Your task to perform on an android device: turn on data saver in the chrome app Image 0: 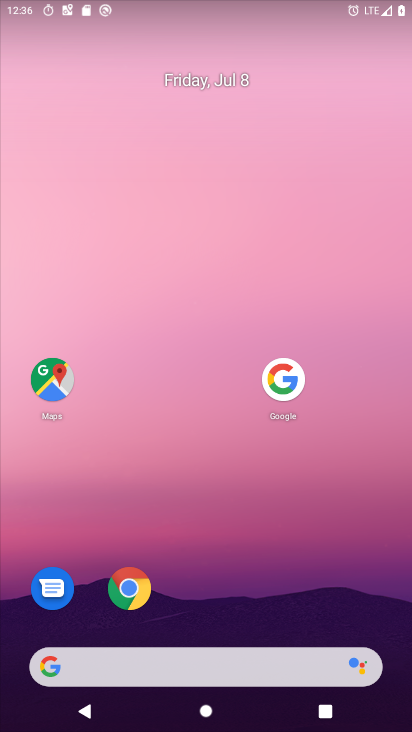
Step 0: click (133, 591)
Your task to perform on an android device: turn on data saver in the chrome app Image 1: 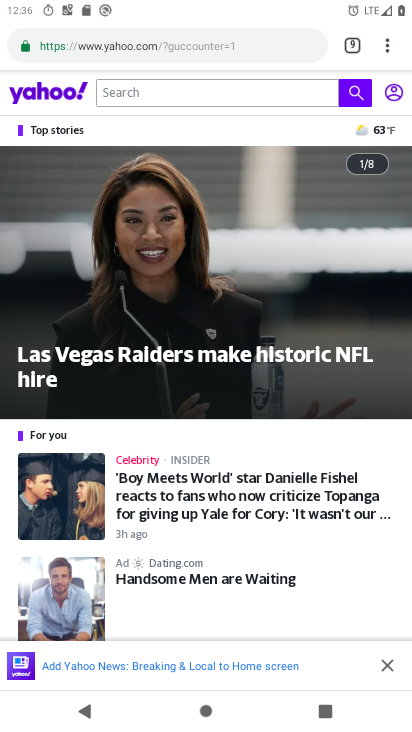
Step 1: drag from (386, 44) to (263, 554)
Your task to perform on an android device: turn on data saver in the chrome app Image 2: 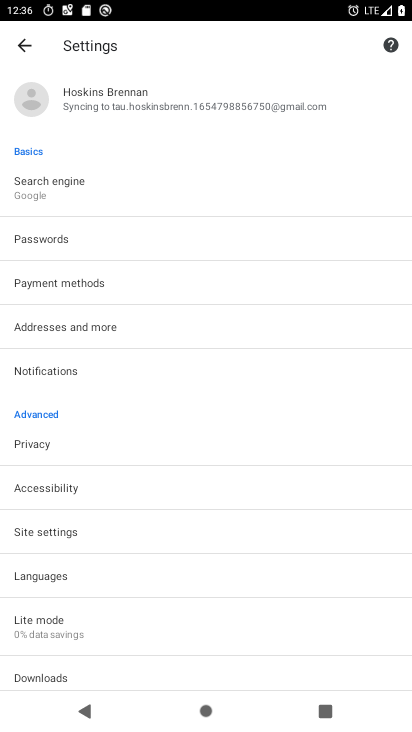
Step 2: click (58, 628)
Your task to perform on an android device: turn on data saver in the chrome app Image 3: 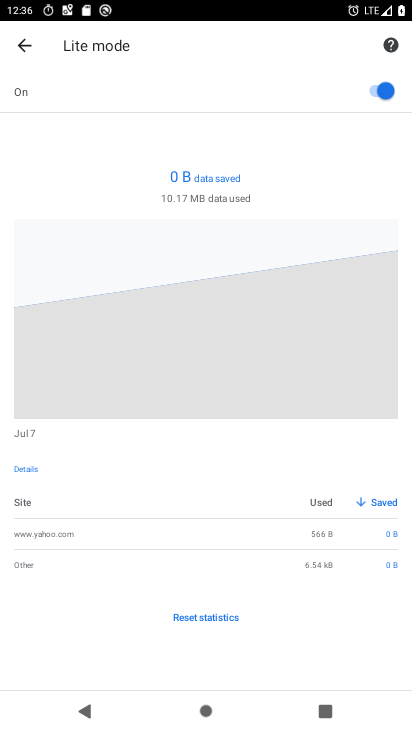
Step 3: task complete